Your task to perform on an android device: turn off wifi Image 0: 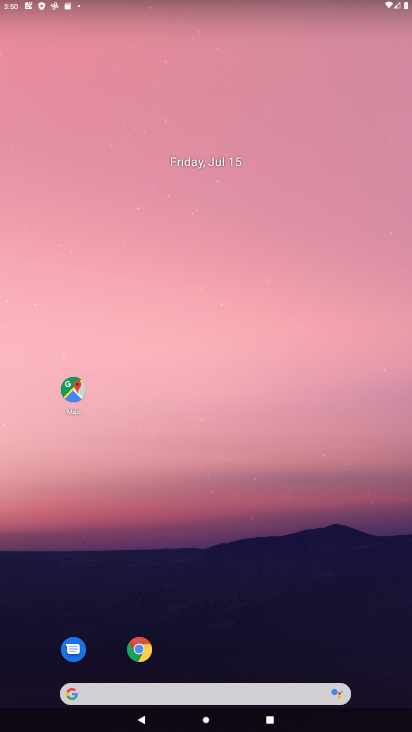
Step 0: drag from (312, 594) to (231, 161)
Your task to perform on an android device: turn off wifi Image 1: 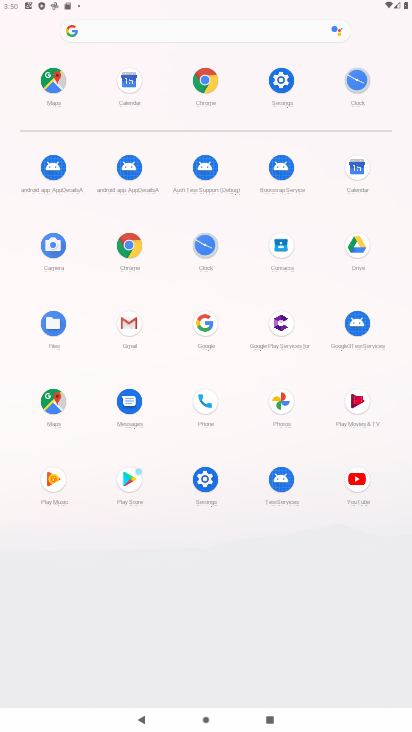
Step 1: click (283, 88)
Your task to perform on an android device: turn off wifi Image 2: 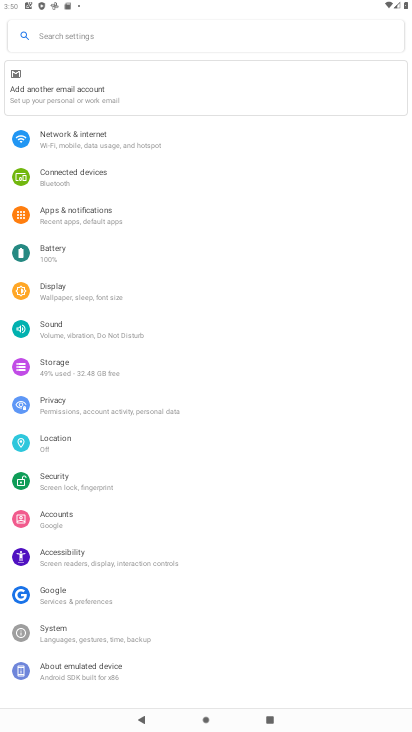
Step 2: click (59, 144)
Your task to perform on an android device: turn off wifi Image 3: 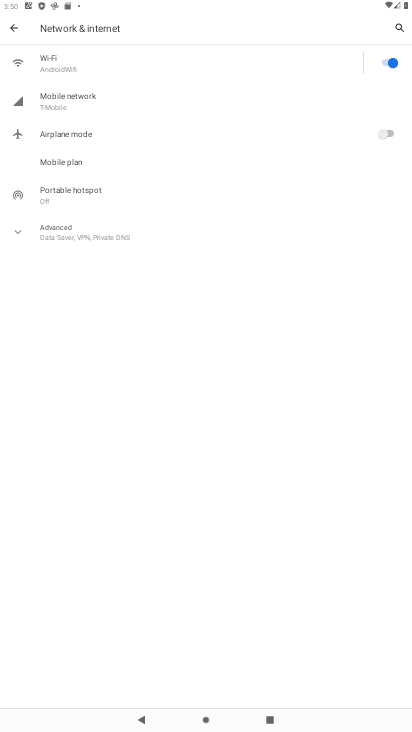
Step 3: click (397, 64)
Your task to perform on an android device: turn off wifi Image 4: 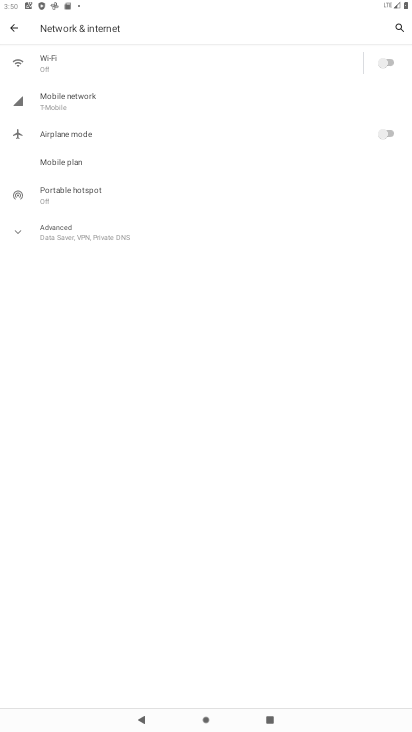
Step 4: task complete